Your task to perform on an android device: open wifi settings Image 0: 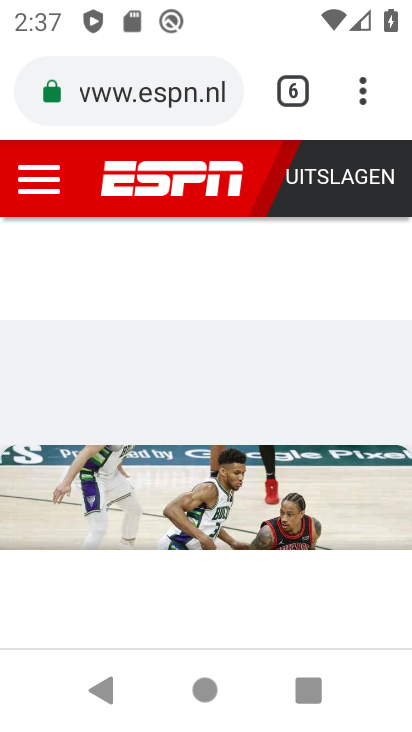
Step 0: press home button
Your task to perform on an android device: open wifi settings Image 1: 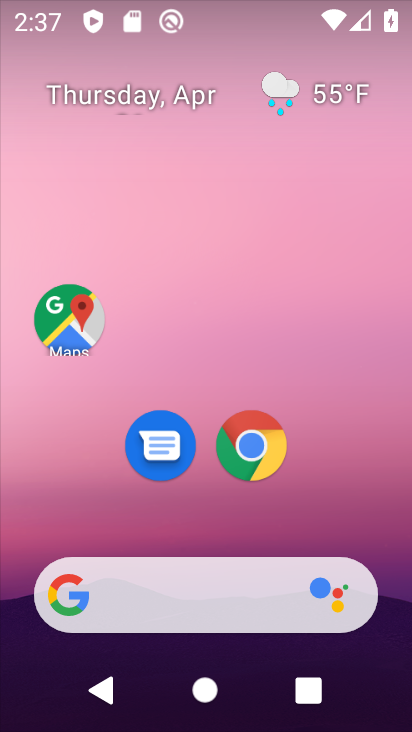
Step 1: drag from (217, 689) to (217, 98)
Your task to perform on an android device: open wifi settings Image 2: 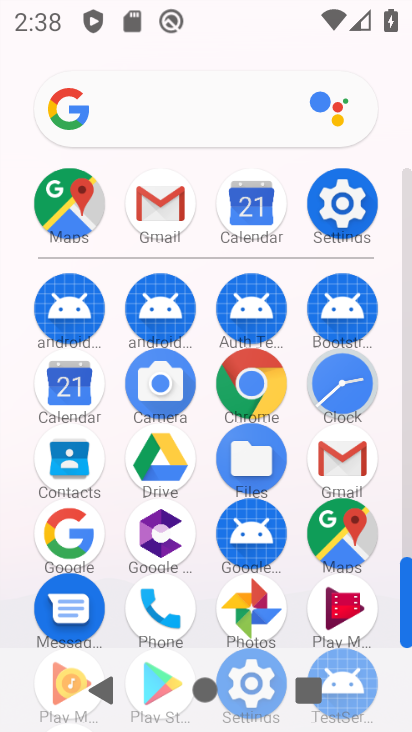
Step 2: click (338, 201)
Your task to perform on an android device: open wifi settings Image 3: 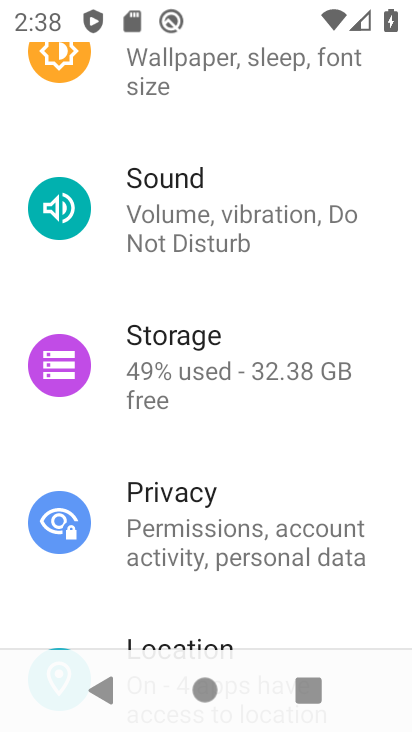
Step 3: drag from (246, 157) to (213, 524)
Your task to perform on an android device: open wifi settings Image 4: 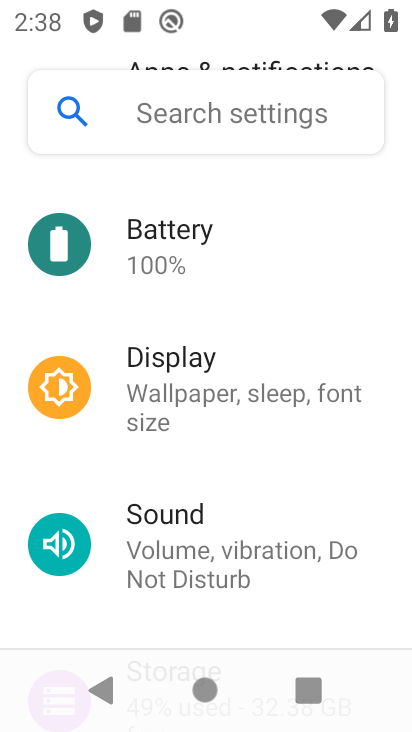
Step 4: drag from (214, 184) to (221, 560)
Your task to perform on an android device: open wifi settings Image 5: 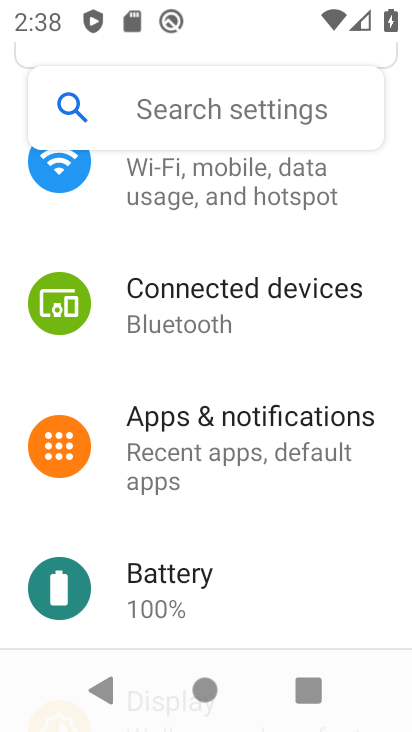
Step 5: drag from (224, 169) to (237, 550)
Your task to perform on an android device: open wifi settings Image 6: 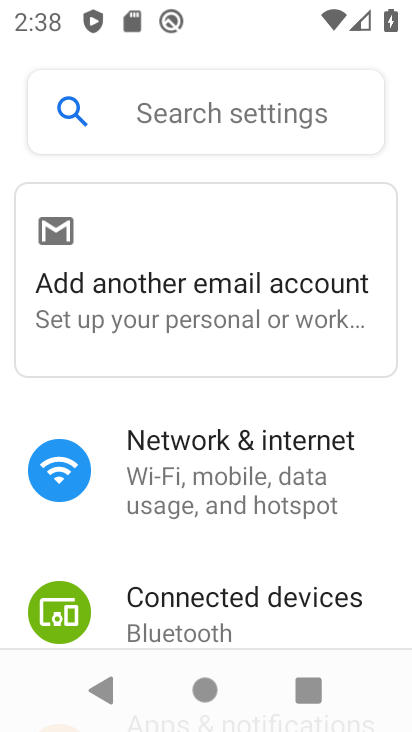
Step 6: click (220, 470)
Your task to perform on an android device: open wifi settings Image 7: 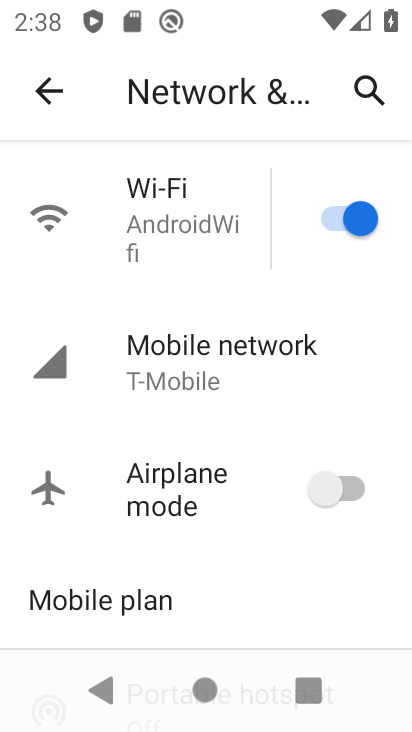
Step 7: click (192, 210)
Your task to perform on an android device: open wifi settings Image 8: 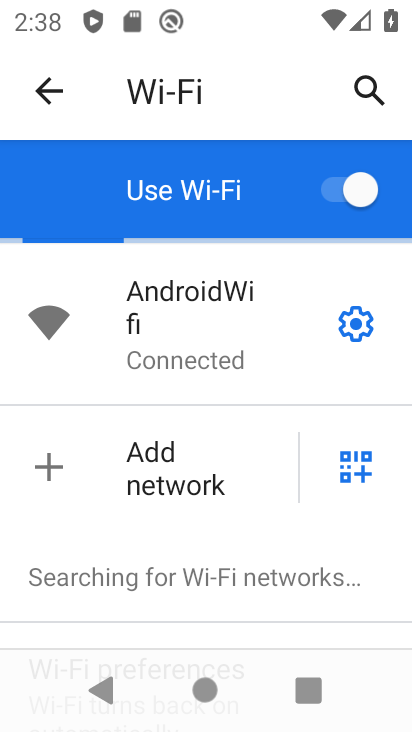
Step 8: click (352, 320)
Your task to perform on an android device: open wifi settings Image 9: 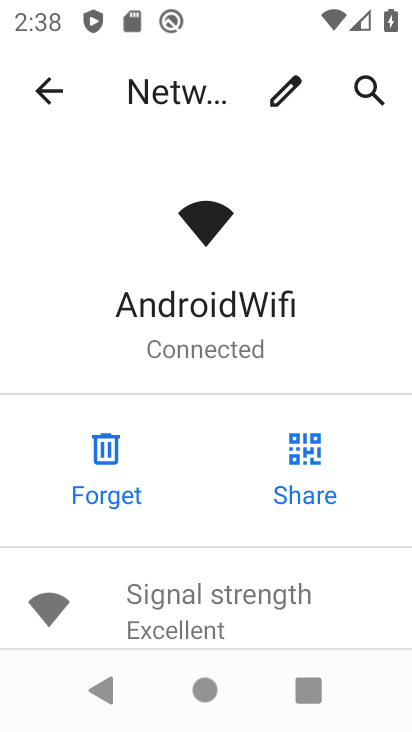
Step 9: task complete